Your task to perform on an android device: Open calendar and show me the second week of next month Image 0: 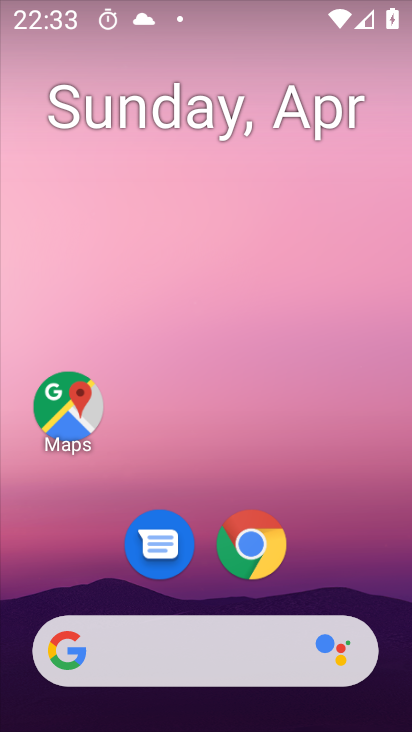
Step 0: drag from (325, 551) to (326, 268)
Your task to perform on an android device: Open calendar and show me the second week of next month Image 1: 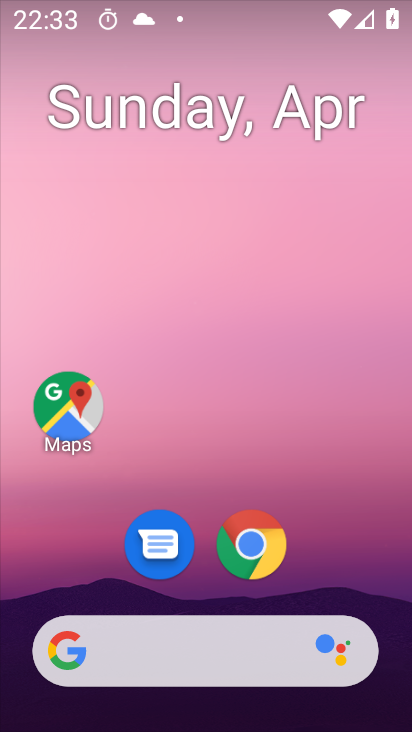
Step 1: drag from (333, 545) to (352, 217)
Your task to perform on an android device: Open calendar and show me the second week of next month Image 2: 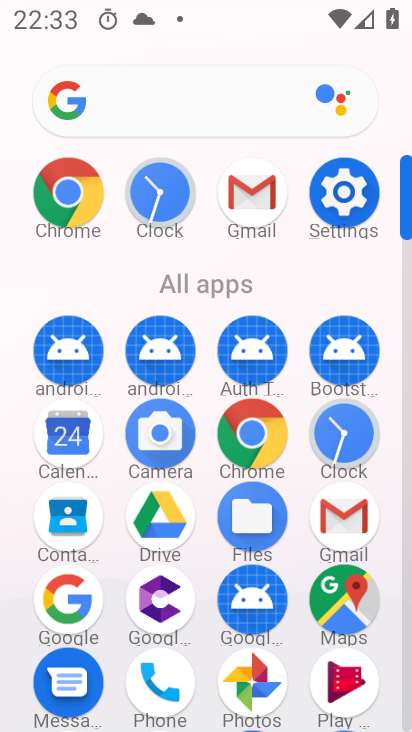
Step 2: click (69, 429)
Your task to perform on an android device: Open calendar and show me the second week of next month Image 3: 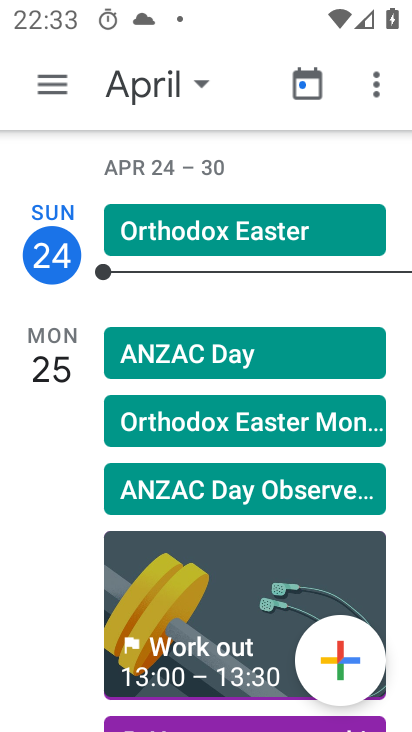
Step 3: click (47, 86)
Your task to perform on an android device: Open calendar and show me the second week of next month Image 4: 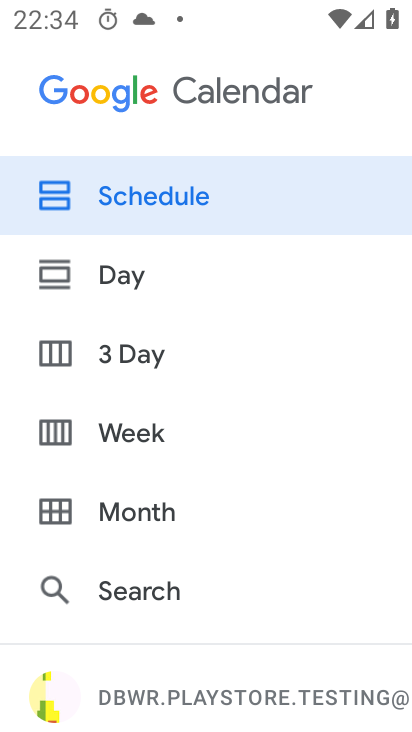
Step 4: click (132, 515)
Your task to perform on an android device: Open calendar and show me the second week of next month Image 5: 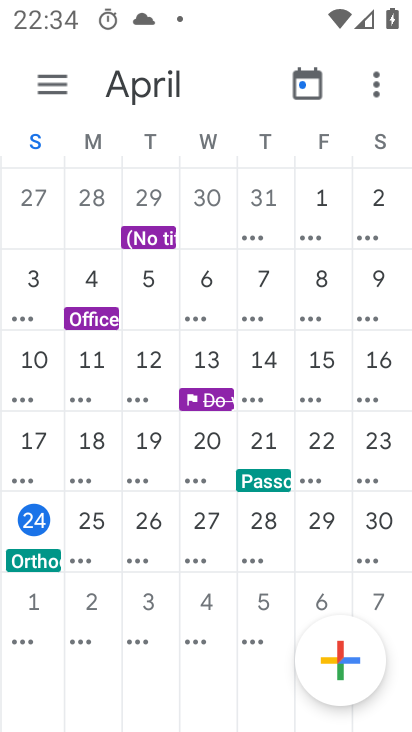
Step 5: task complete